Your task to perform on an android device: set an alarm Image 0: 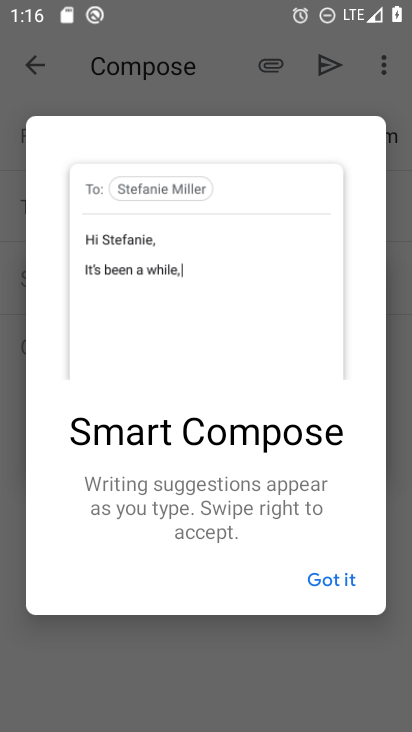
Step 0: press home button
Your task to perform on an android device: set an alarm Image 1: 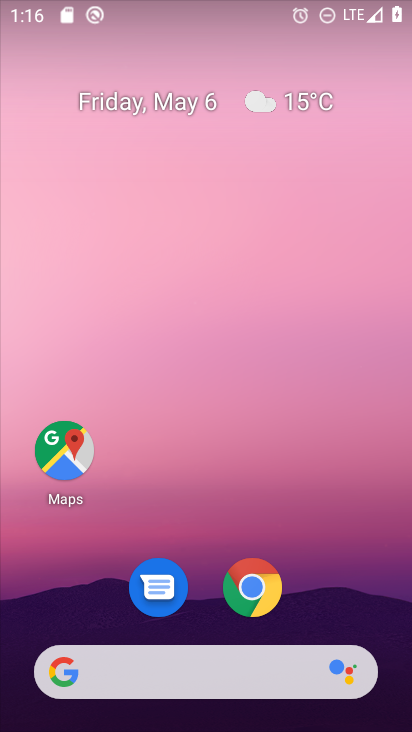
Step 1: drag from (350, 576) to (293, 104)
Your task to perform on an android device: set an alarm Image 2: 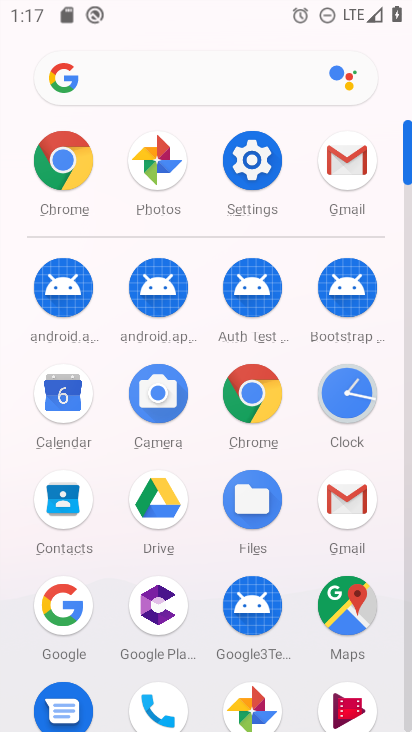
Step 2: click (343, 400)
Your task to perform on an android device: set an alarm Image 3: 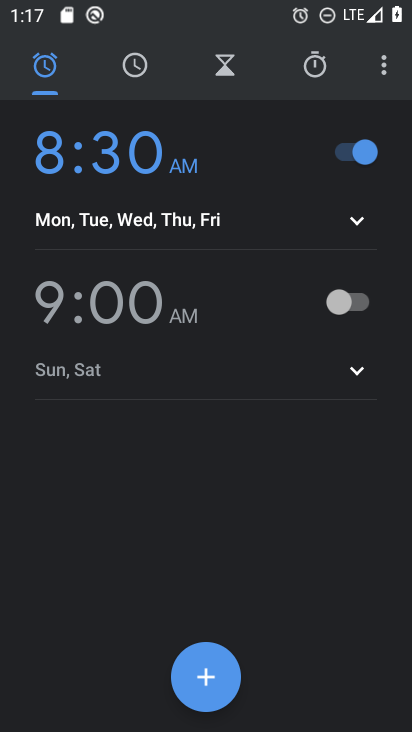
Step 3: click (341, 301)
Your task to perform on an android device: set an alarm Image 4: 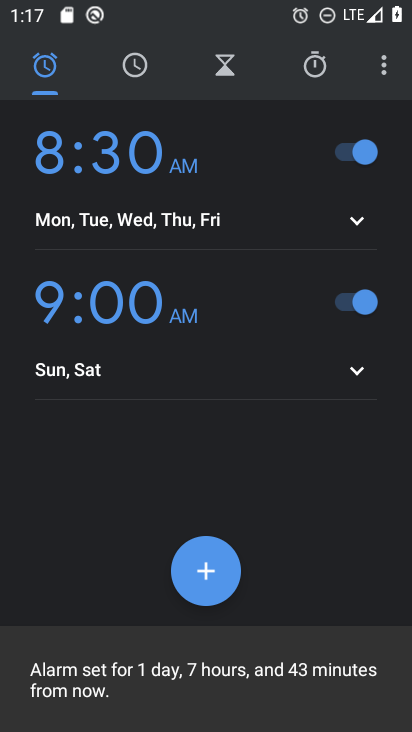
Step 4: task complete